Your task to perform on an android device: Open calendar and show me the third week of next month Image 0: 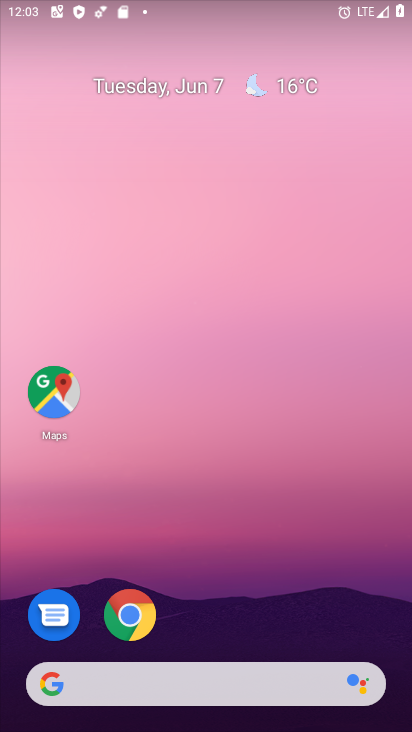
Step 0: press home button
Your task to perform on an android device: Open calendar and show me the third week of next month Image 1: 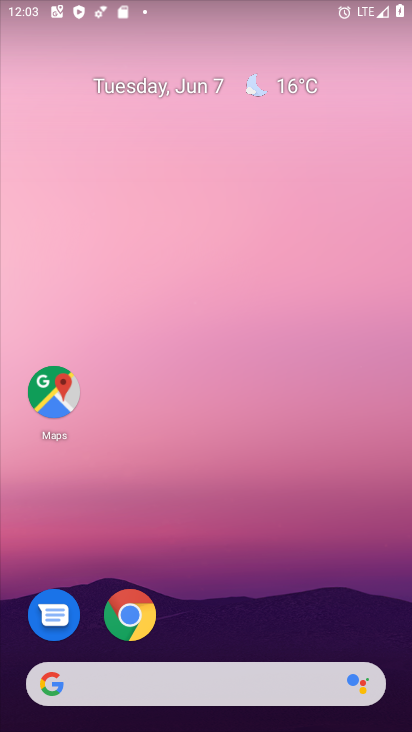
Step 1: drag from (205, 643) to (205, 84)
Your task to perform on an android device: Open calendar and show me the third week of next month Image 2: 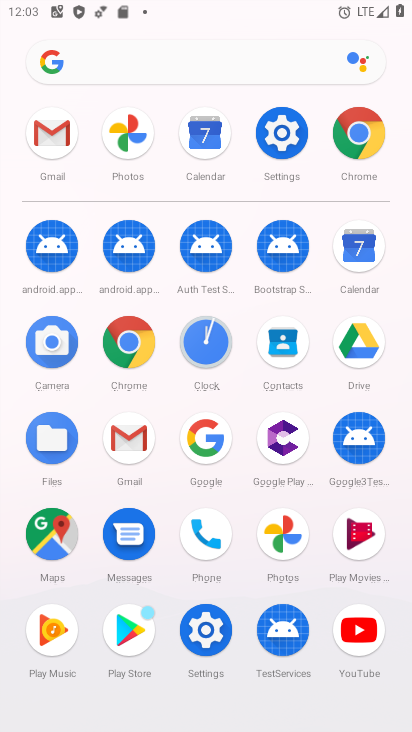
Step 2: click (355, 239)
Your task to perform on an android device: Open calendar and show me the third week of next month Image 3: 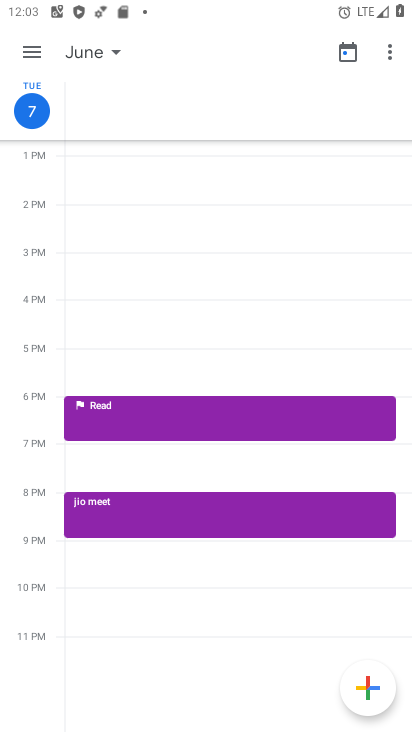
Step 3: click (117, 45)
Your task to perform on an android device: Open calendar and show me the third week of next month Image 4: 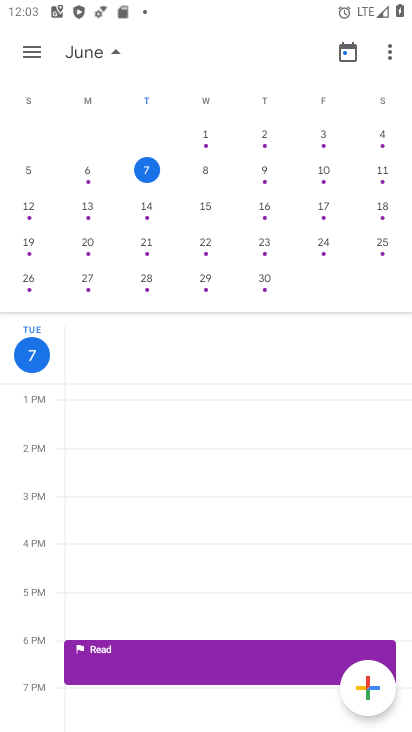
Step 4: drag from (369, 232) to (0, 221)
Your task to perform on an android device: Open calendar and show me the third week of next month Image 5: 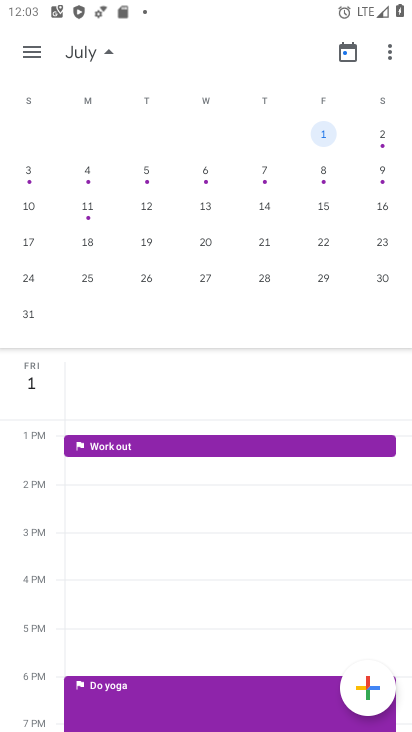
Step 5: click (31, 240)
Your task to perform on an android device: Open calendar and show me the third week of next month Image 6: 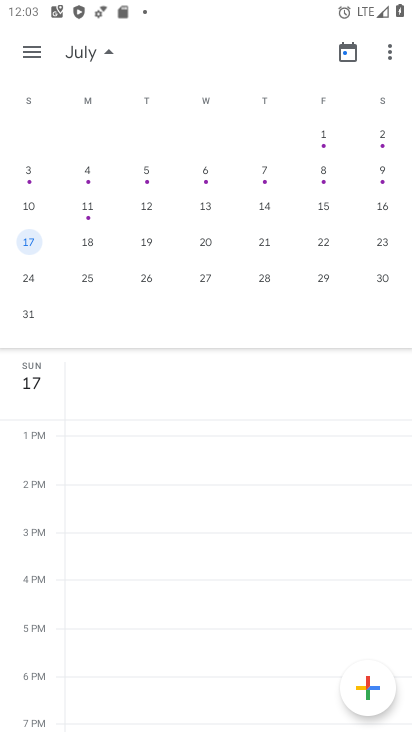
Step 6: click (104, 47)
Your task to perform on an android device: Open calendar and show me the third week of next month Image 7: 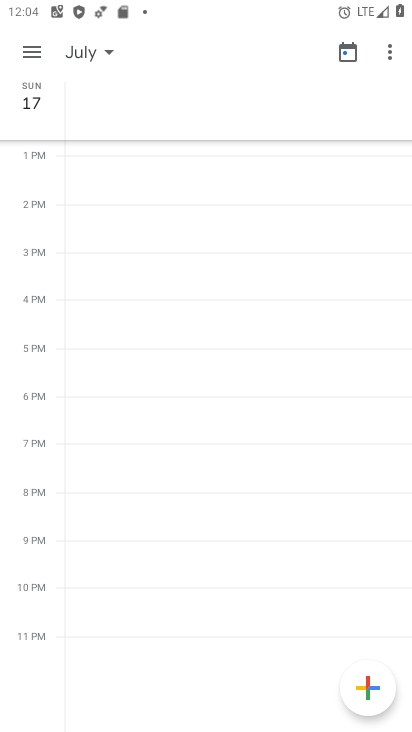
Step 7: click (34, 115)
Your task to perform on an android device: Open calendar and show me the third week of next month Image 8: 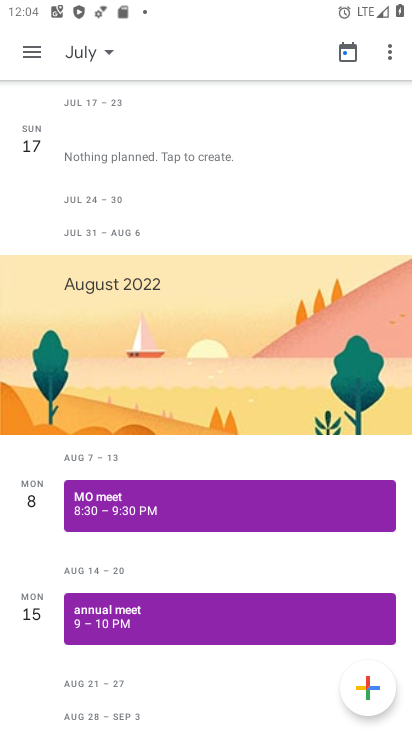
Step 8: task complete